Your task to perform on an android device: toggle notifications settings in the gmail app Image 0: 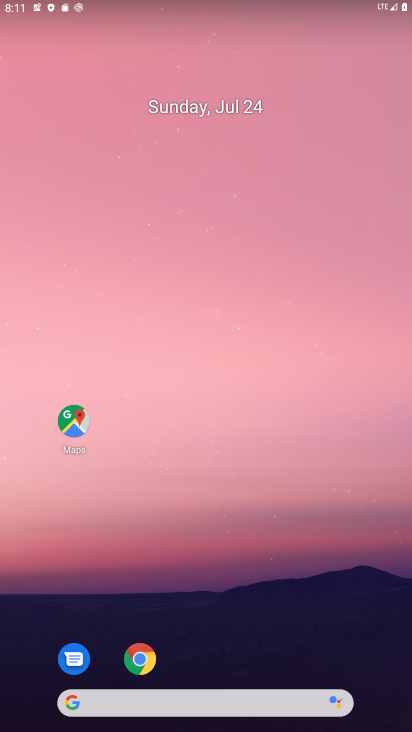
Step 0: drag from (173, 656) to (207, 218)
Your task to perform on an android device: toggle notifications settings in the gmail app Image 1: 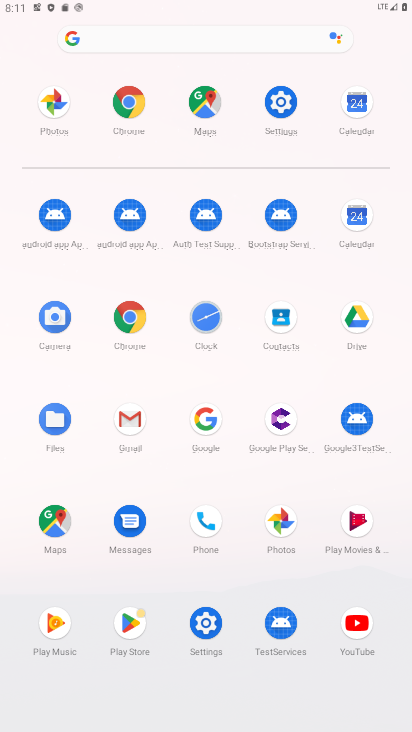
Step 1: click (126, 416)
Your task to perform on an android device: toggle notifications settings in the gmail app Image 2: 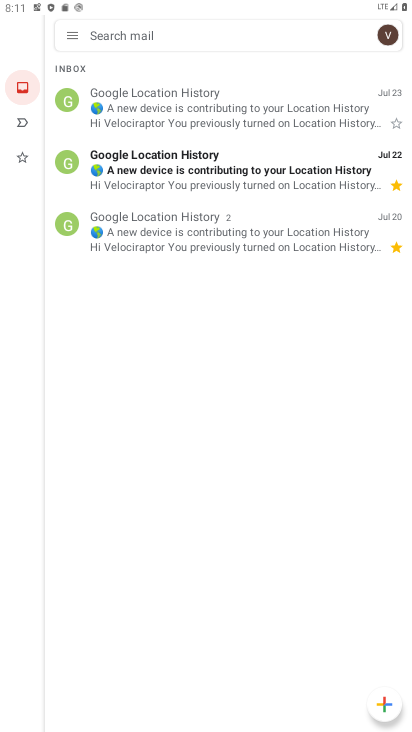
Step 2: click (78, 33)
Your task to perform on an android device: toggle notifications settings in the gmail app Image 3: 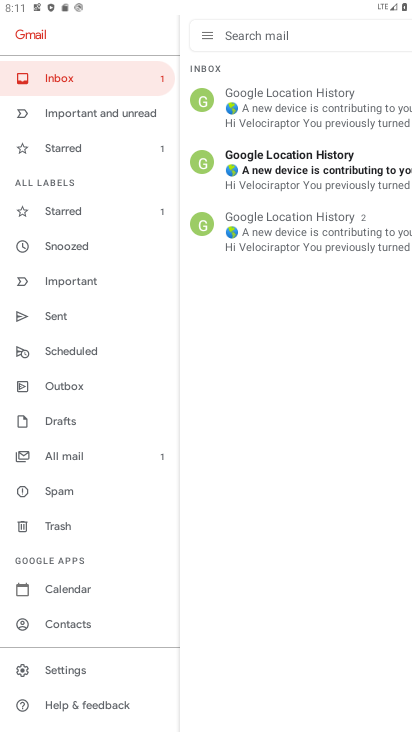
Step 3: click (64, 663)
Your task to perform on an android device: toggle notifications settings in the gmail app Image 4: 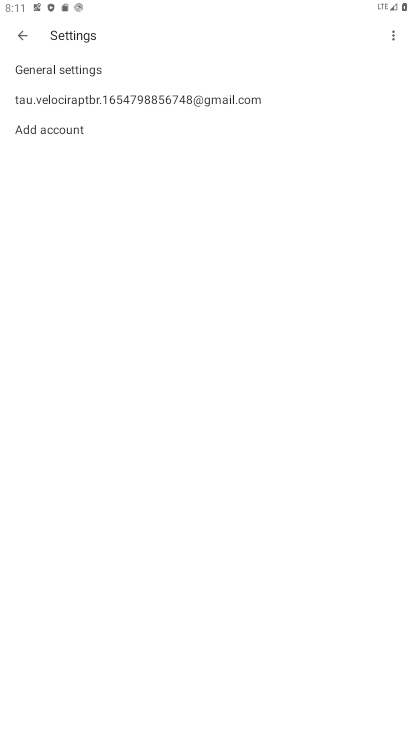
Step 4: click (114, 96)
Your task to perform on an android device: toggle notifications settings in the gmail app Image 5: 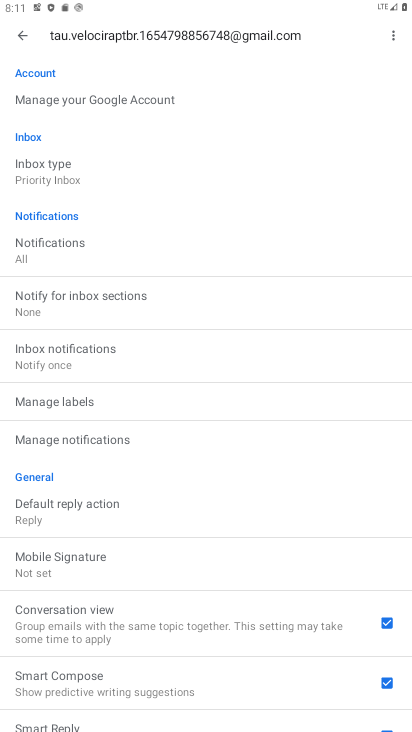
Step 5: click (69, 238)
Your task to perform on an android device: toggle notifications settings in the gmail app Image 6: 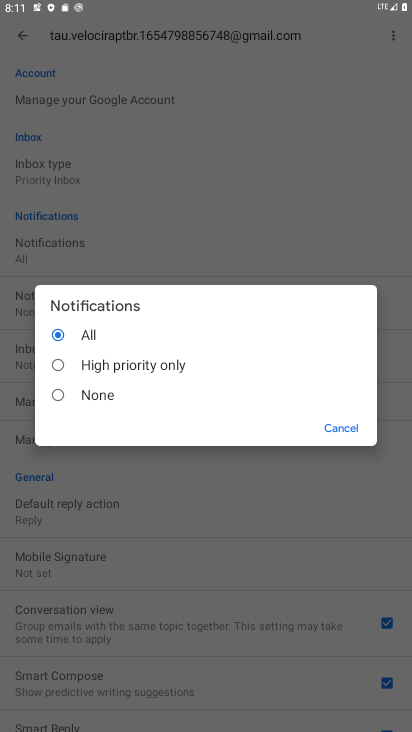
Step 6: click (60, 391)
Your task to perform on an android device: toggle notifications settings in the gmail app Image 7: 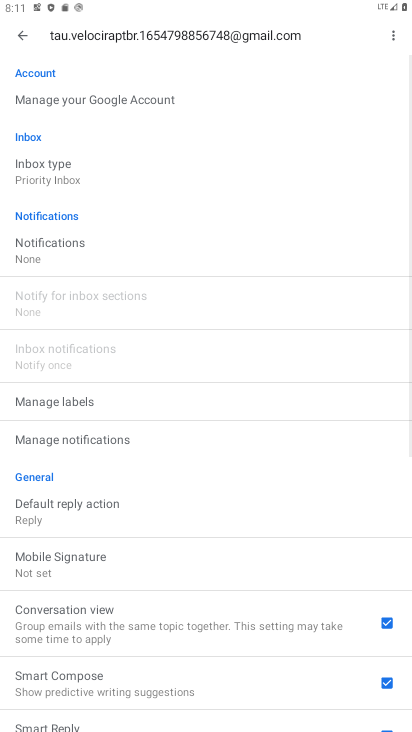
Step 7: task complete